Your task to perform on an android device: allow notifications from all sites in the chrome app Image 0: 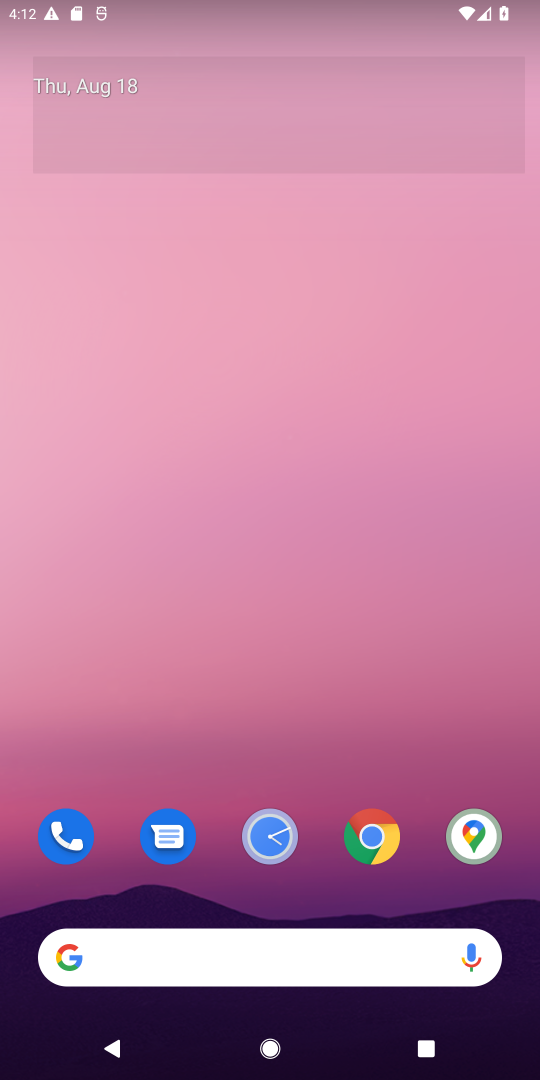
Step 0: drag from (225, 891) to (252, 83)
Your task to perform on an android device: allow notifications from all sites in the chrome app Image 1: 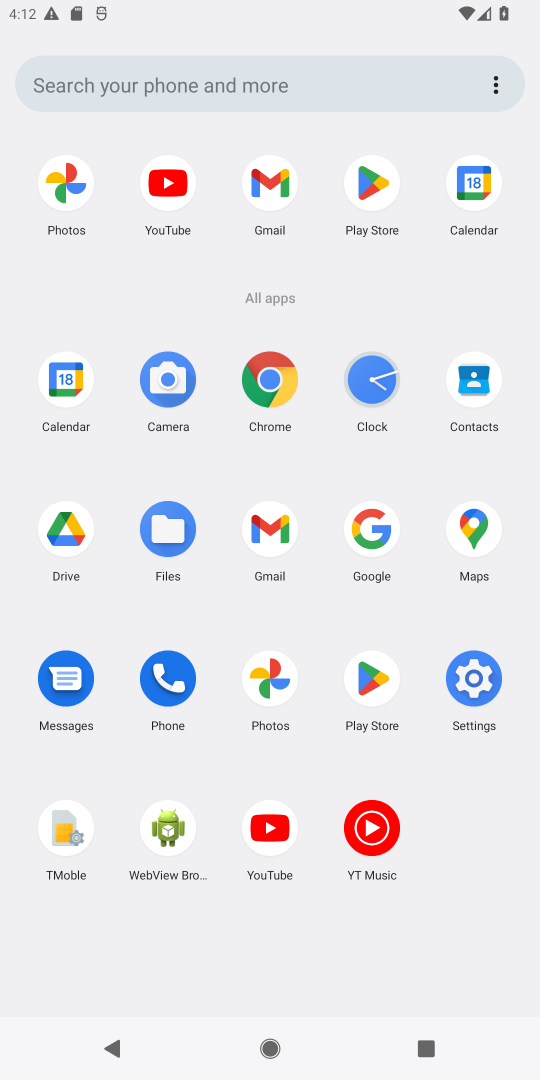
Step 1: click (271, 380)
Your task to perform on an android device: allow notifications from all sites in the chrome app Image 2: 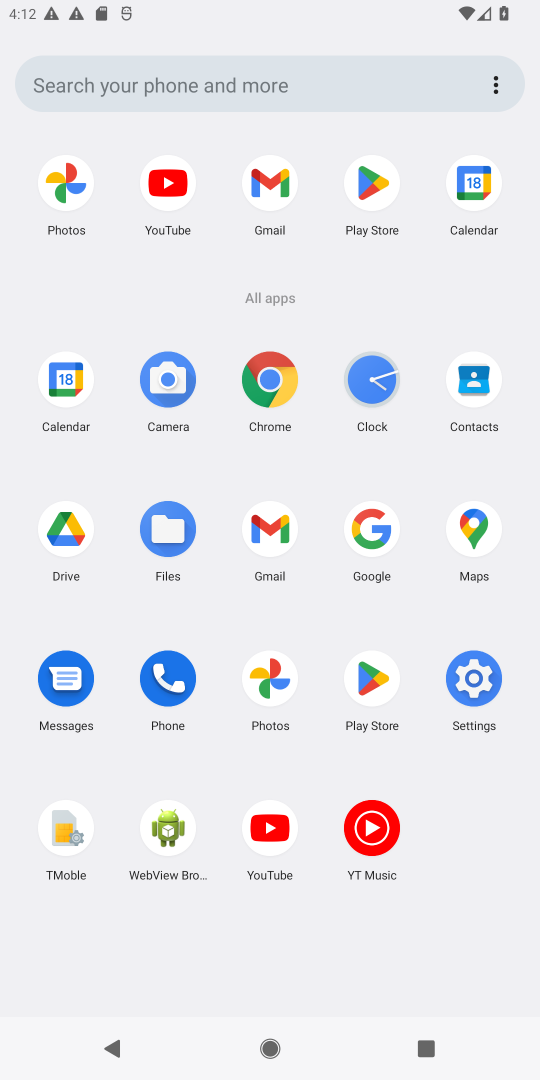
Step 2: click (272, 373)
Your task to perform on an android device: allow notifications from all sites in the chrome app Image 3: 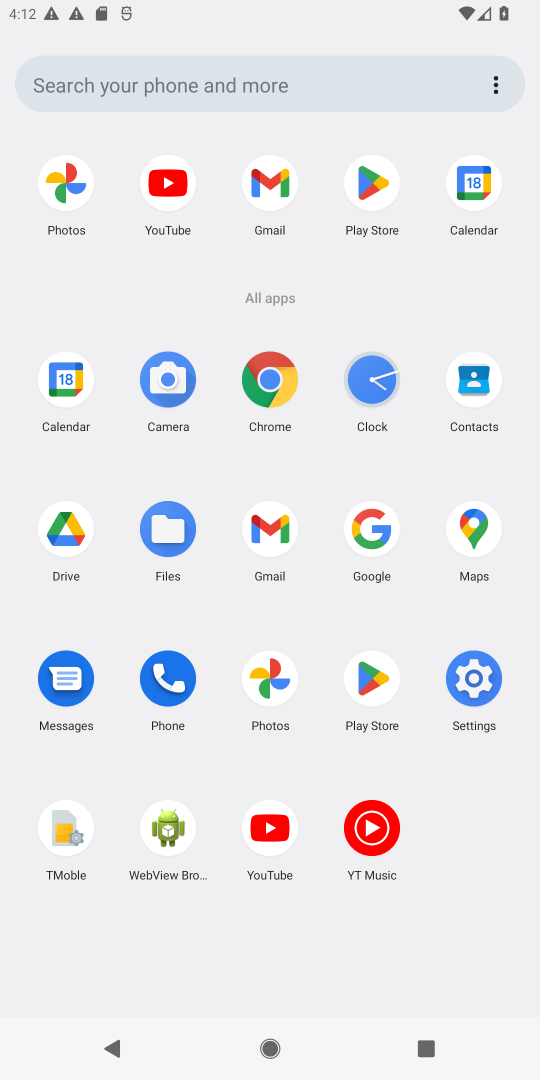
Step 3: click (266, 375)
Your task to perform on an android device: allow notifications from all sites in the chrome app Image 4: 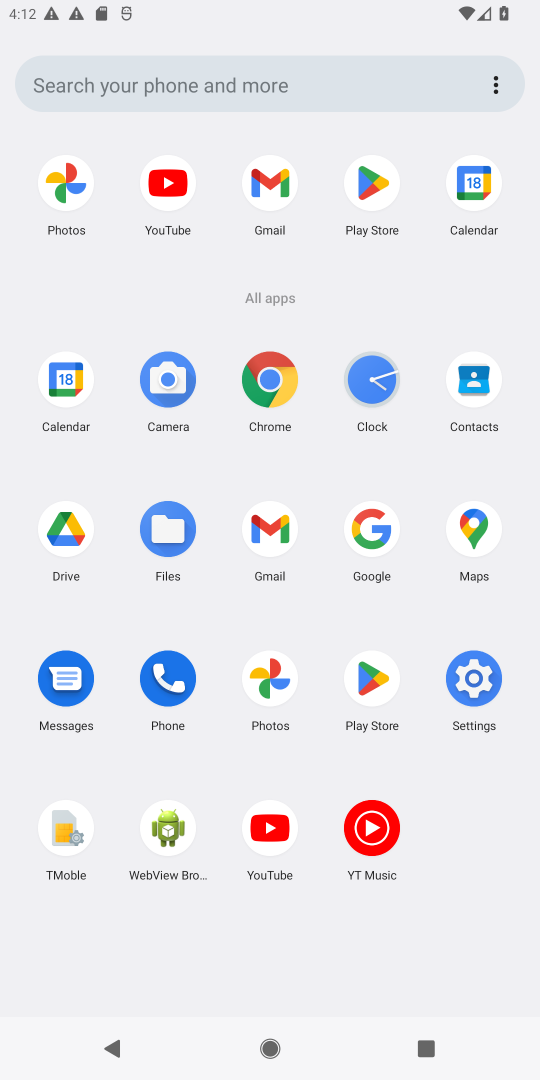
Step 4: click (266, 375)
Your task to perform on an android device: allow notifications from all sites in the chrome app Image 5: 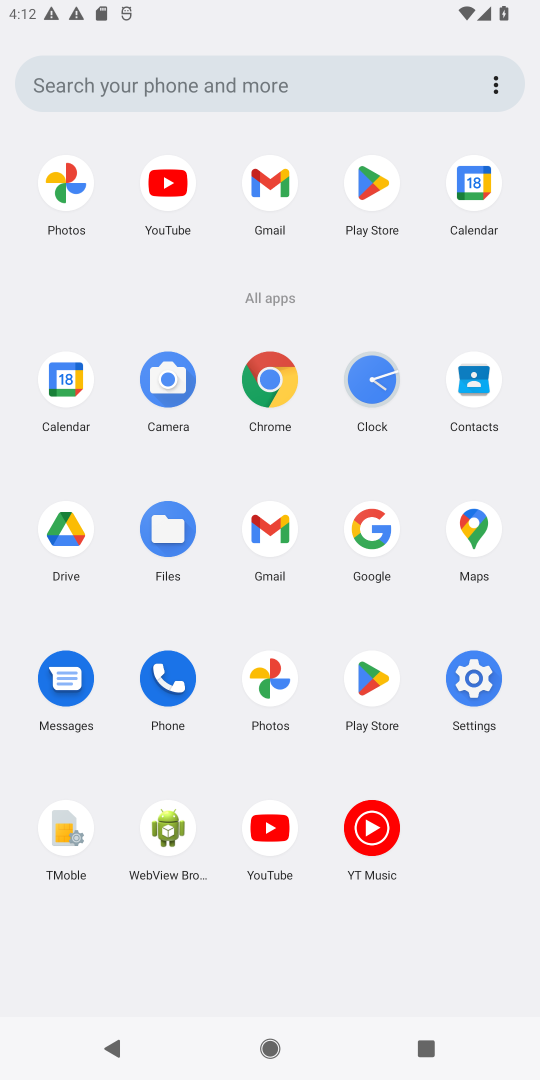
Step 5: click (276, 383)
Your task to perform on an android device: allow notifications from all sites in the chrome app Image 6: 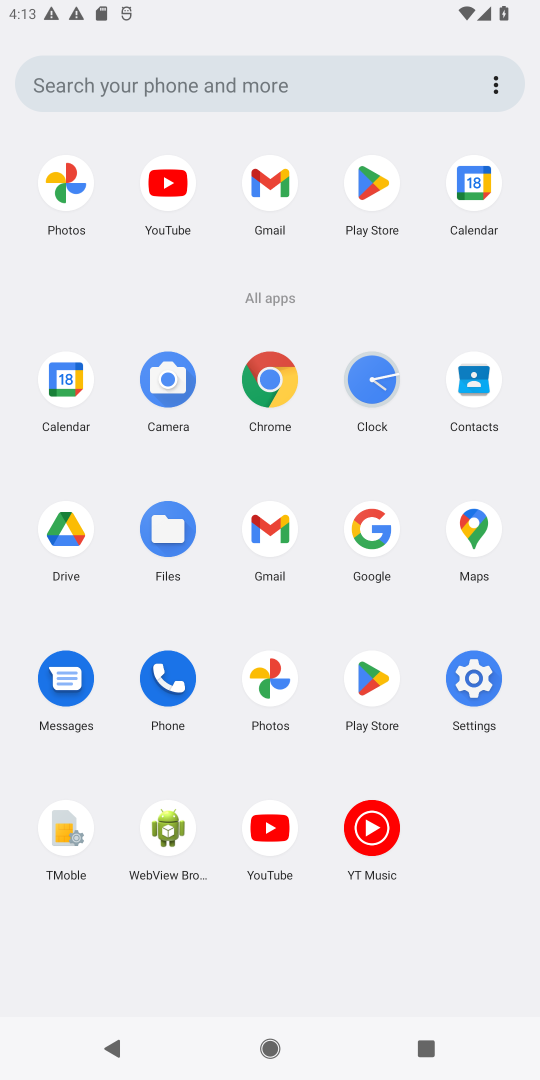
Step 6: click (269, 368)
Your task to perform on an android device: allow notifications from all sites in the chrome app Image 7: 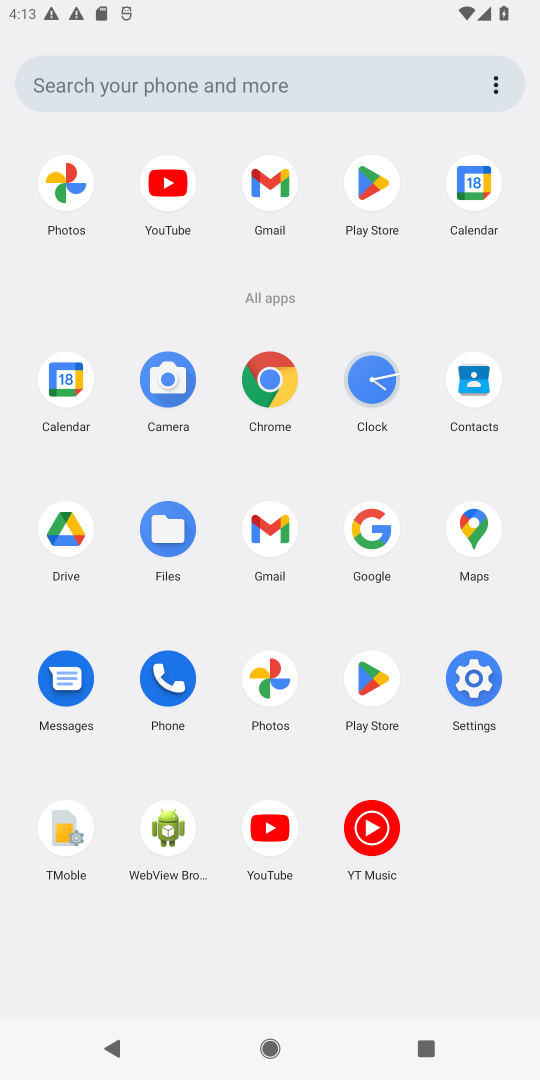
Step 7: click (285, 376)
Your task to perform on an android device: allow notifications from all sites in the chrome app Image 8: 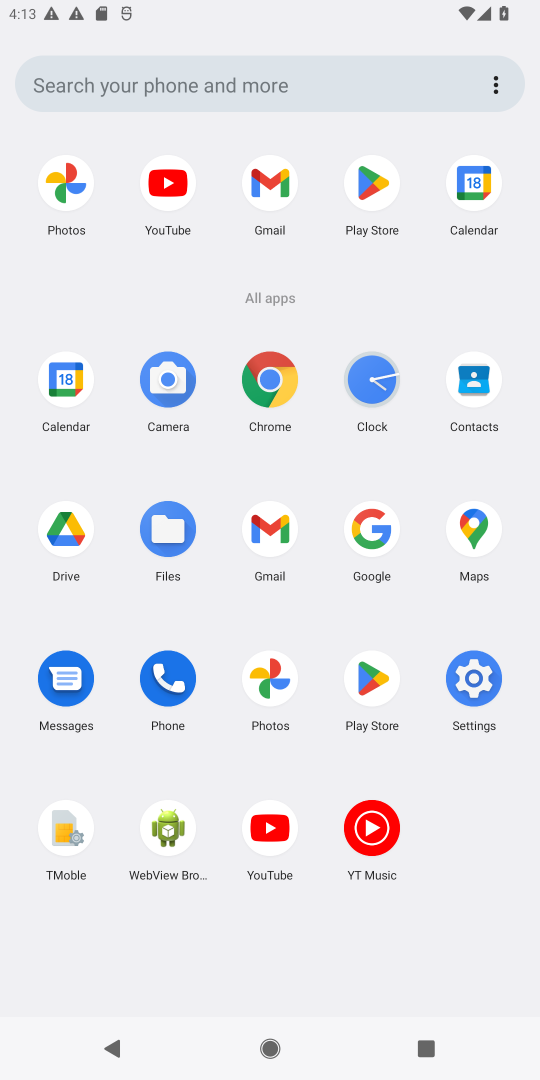
Step 8: click (273, 378)
Your task to perform on an android device: allow notifications from all sites in the chrome app Image 9: 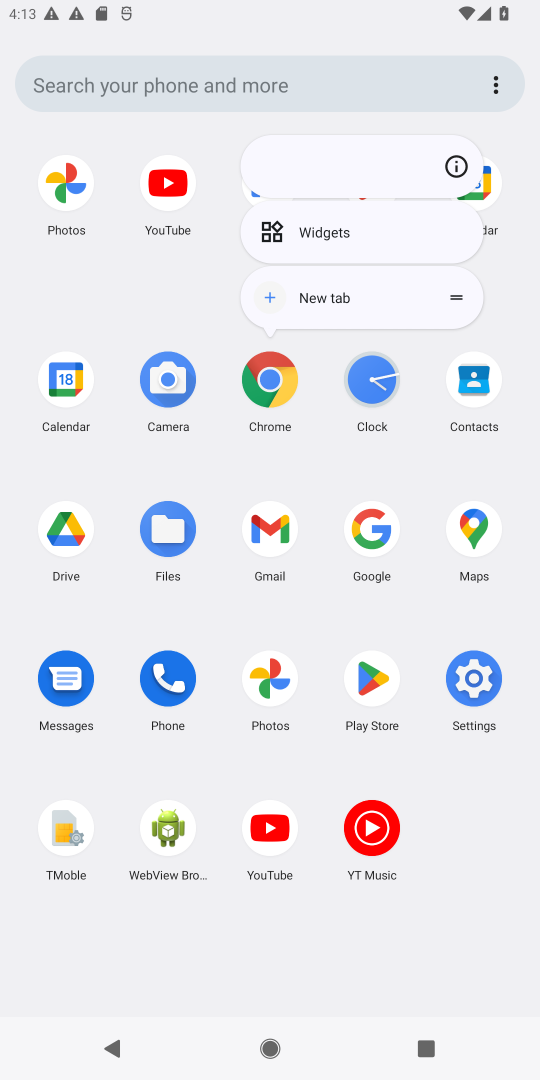
Step 9: click (266, 385)
Your task to perform on an android device: allow notifications from all sites in the chrome app Image 10: 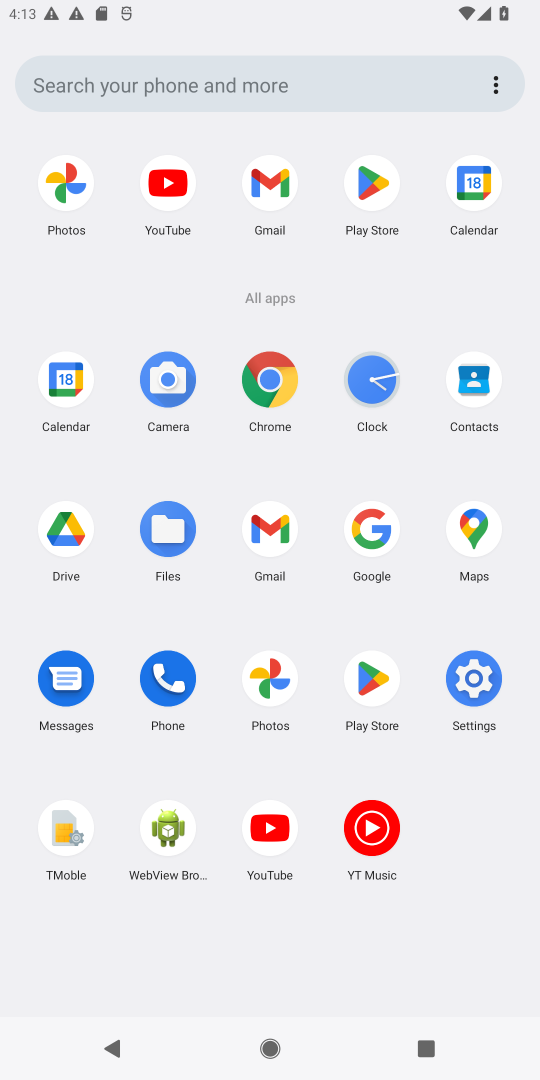
Step 10: click (266, 382)
Your task to perform on an android device: allow notifications from all sites in the chrome app Image 11: 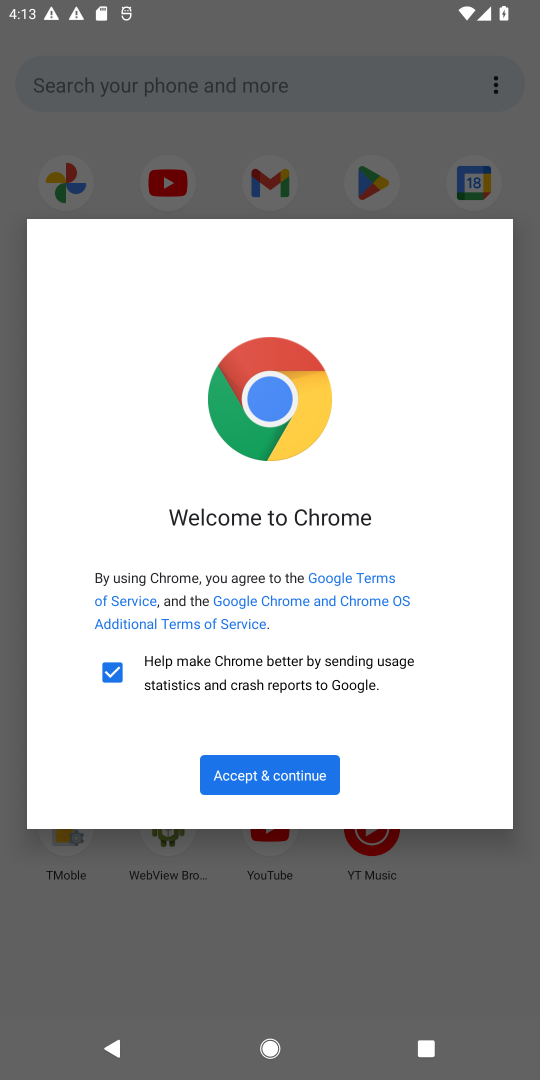
Step 11: click (263, 770)
Your task to perform on an android device: allow notifications from all sites in the chrome app Image 12: 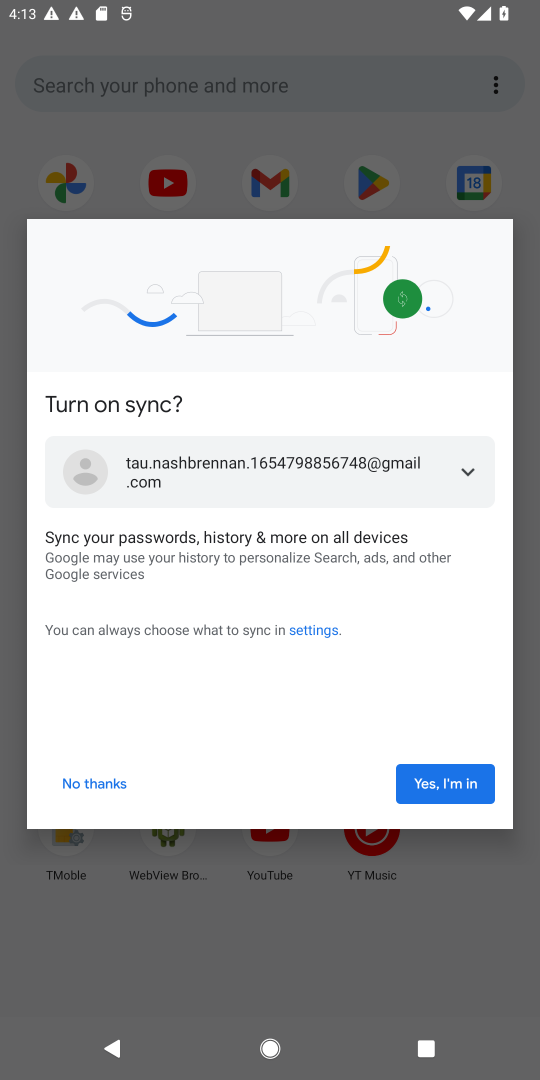
Step 12: click (426, 779)
Your task to perform on an android device: allow notifications from all sites in the chrome app Image 13: 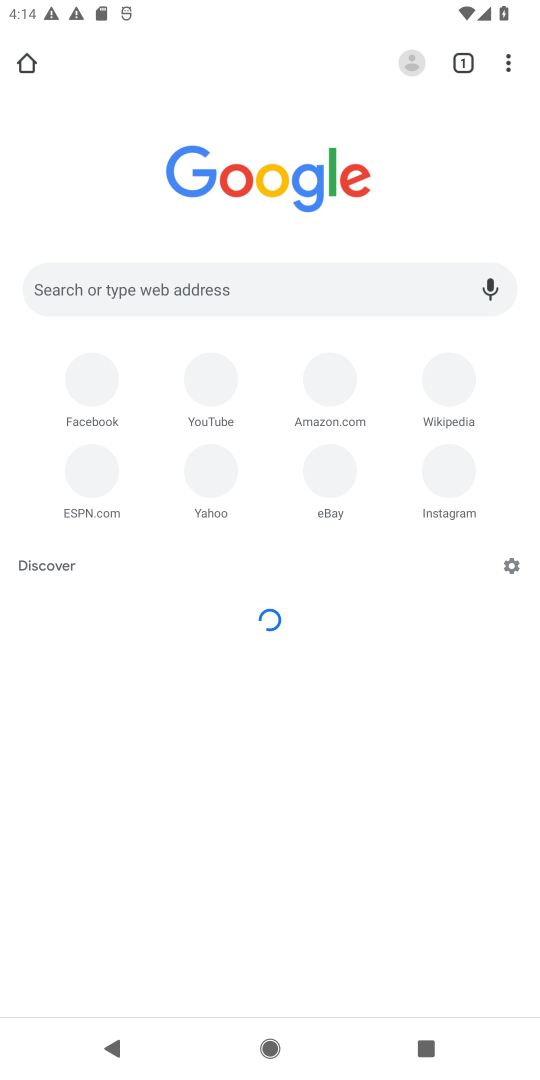
Step 13: drag from (502, 58) to (306, 533)
Your task to perform on an android device: allow notifications from all sites in the chrome app Image 14: 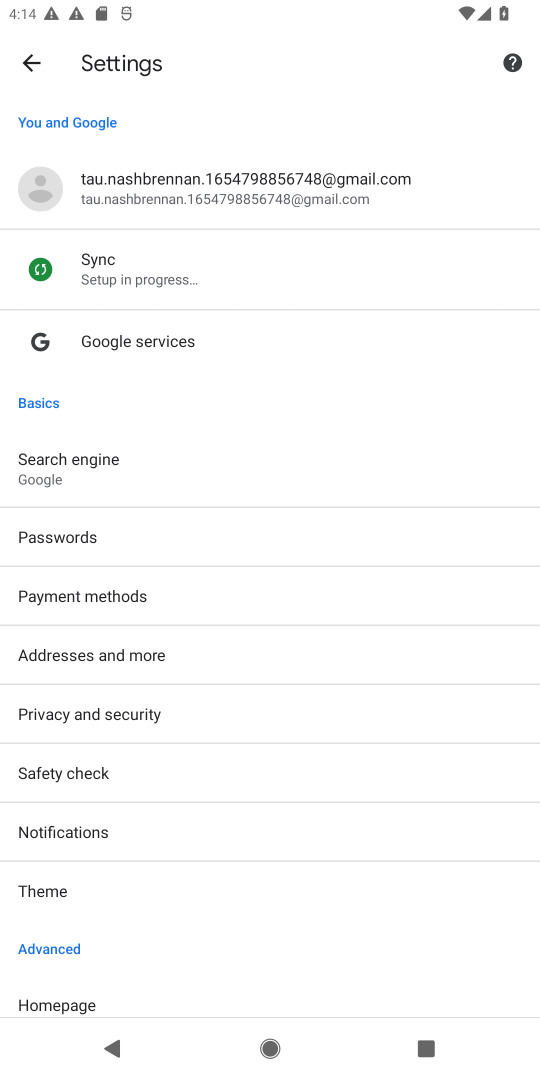
Step 14: drag from (173, 869) to (174, 591)
Your task to perform on an android device: allow notifications from all sites in the chrome app Image 15: 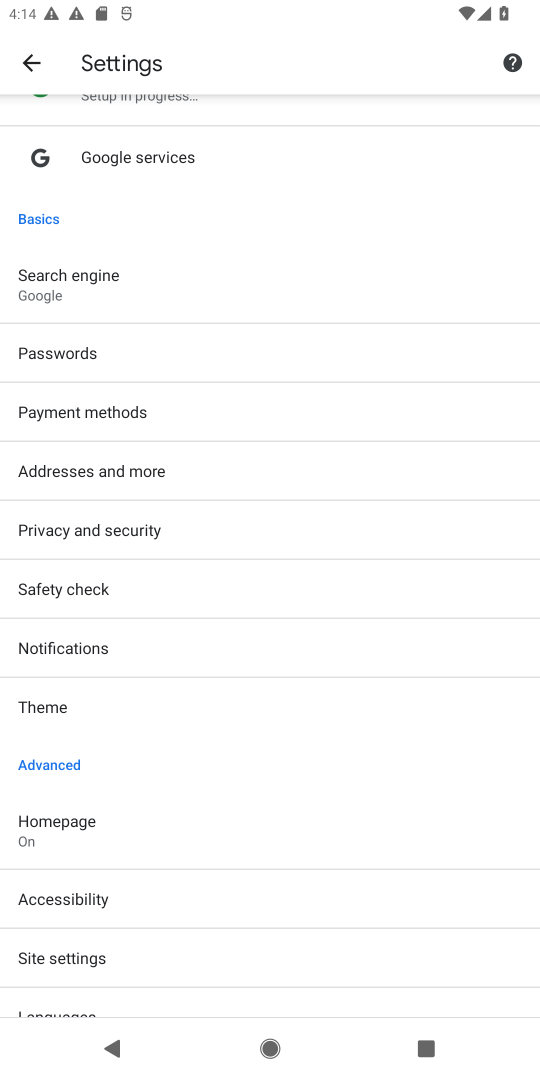
Step 15: click (72, 650)
Your task to perform on an android device: allow notifications from all sites in the chrome app Image 16: 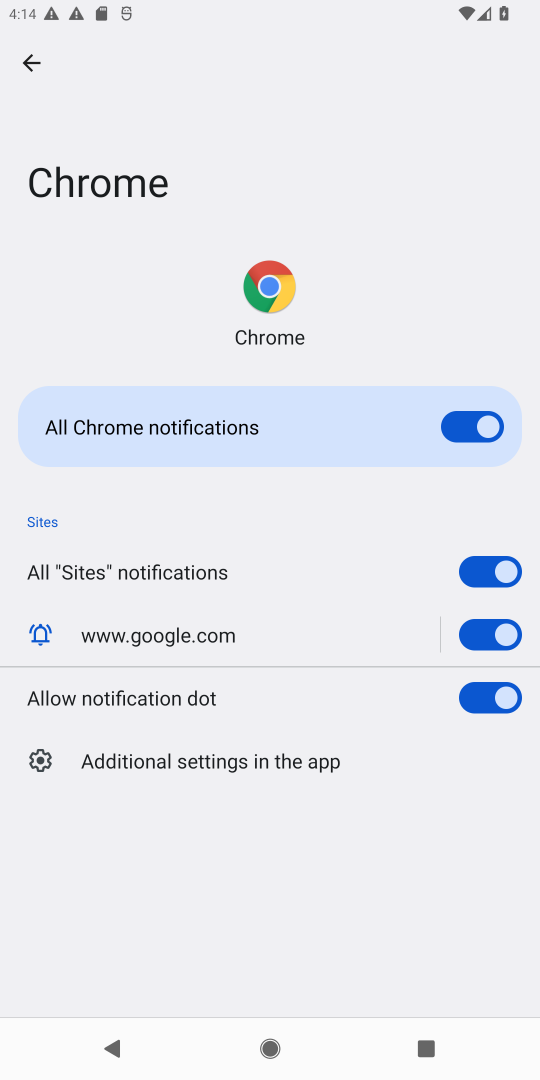
Step 16: task complete